Your task to perform on an android device: Open Chrome and go to settings Image 0: 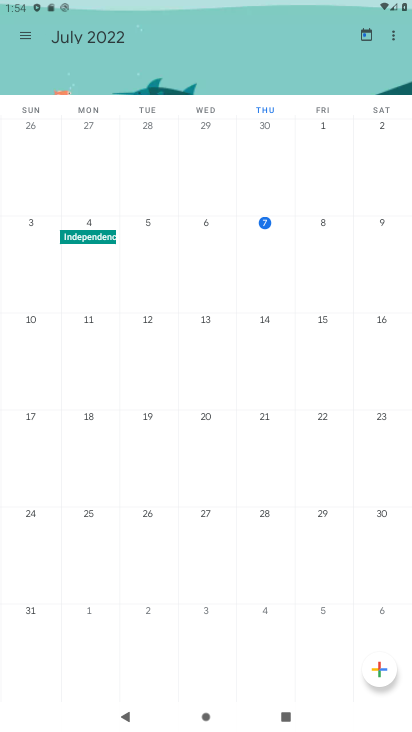
Step 0: press home button
Your task to perform on an android device: Open Chrome and go to settings Image 1: 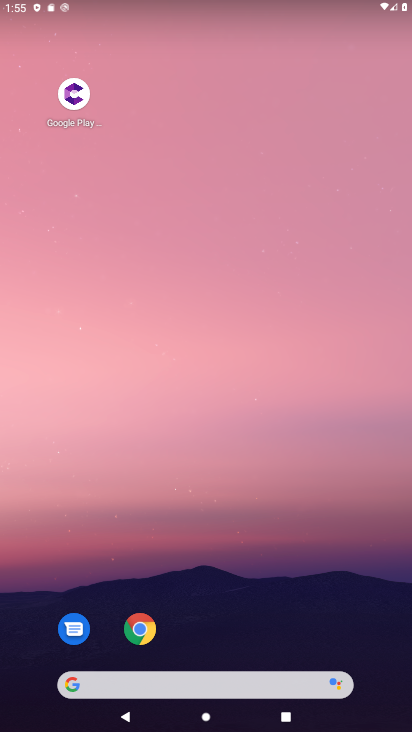
Step 1: drag from (165, 651) to (252, 91)
Your task to perform on an android device: Open Chrome and go to settings Image 2: 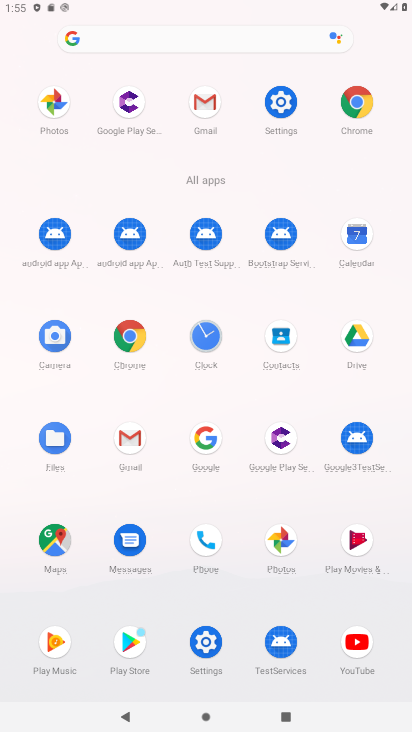
Step 2: click (104, 337)
Your task to perform on an android device: Open Chrome and go to settings Image 3: 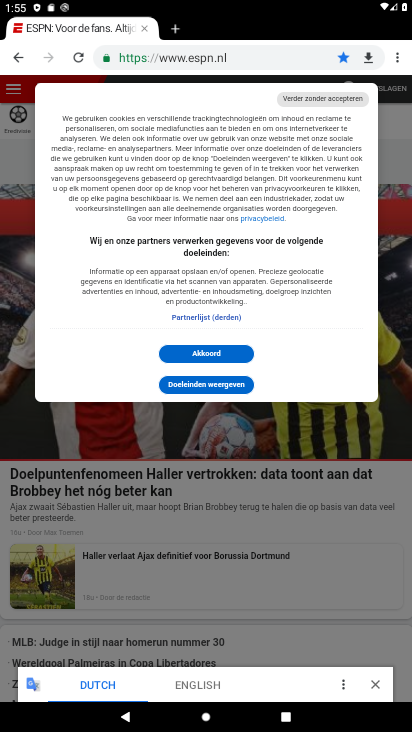
Step 3: task complete